Your task to perform on an android device: toggle sleep mode Image 0: 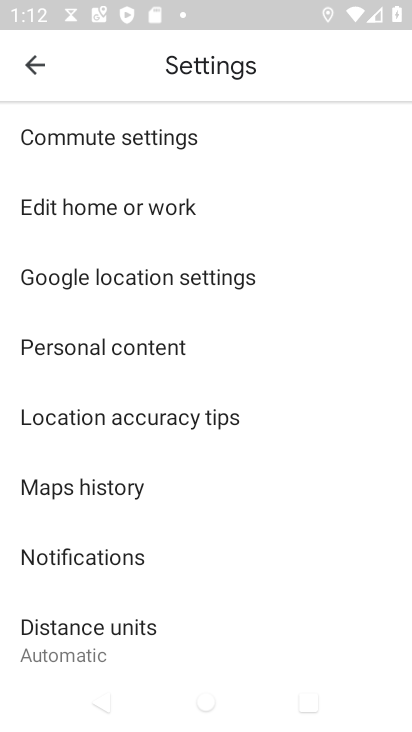
Step 0: press home button
Your task to perform on an android device: toggle sleep mode Image 1: 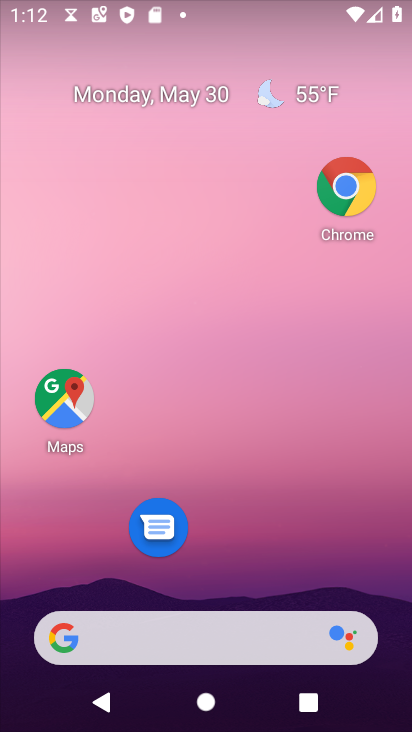
Step 1: drag from (213, 560) to (203, 149)
Your task to perform on an android device: toggle sleep mode Image 2: 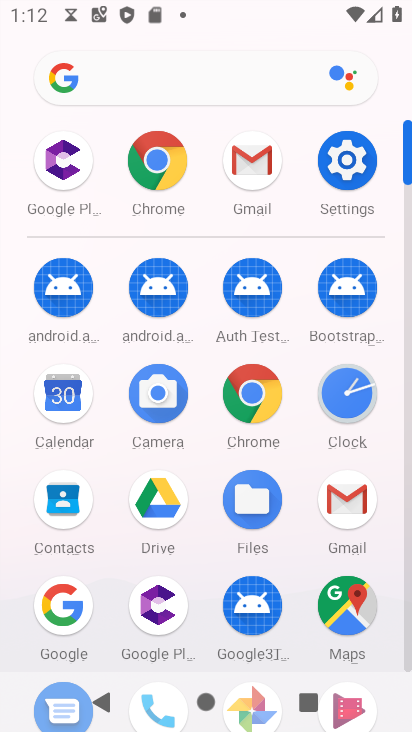
Step 2: click (348, 156)
Your task to perform on an android device: toggle sleep mode Image 3: 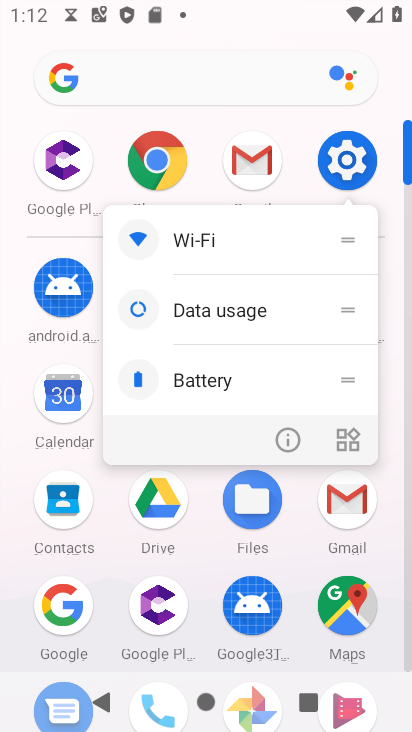
Step 3: click (292, 438)
Your task to perform on an android device: toggle sleep mode Image 4: 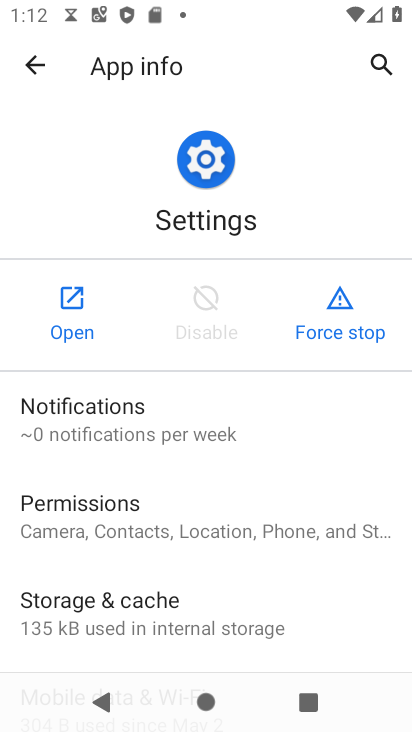
Step 4: click (71, 301)
Your task to perform on an android device: toggle sleep mode Image 5: 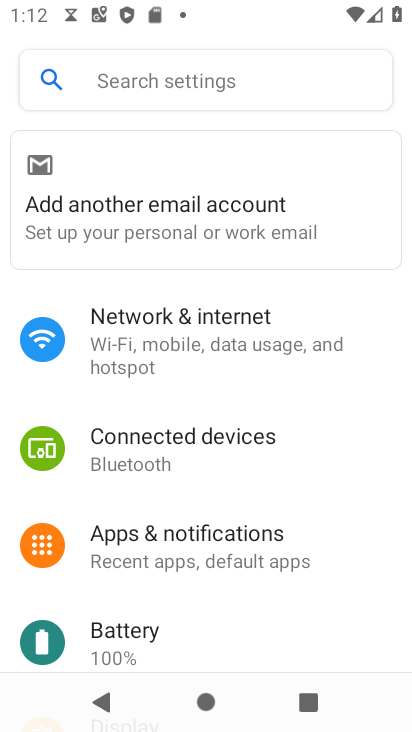
Step 5: drag from (219, 591) to (232, 154)
Your task to perform on an android device: toggle sleep mode Image 6: 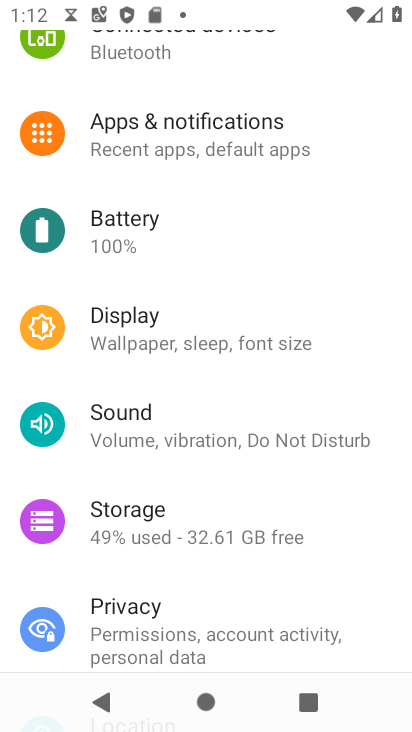
Step 6: click (146, 317)
Your task to perform on an android device: toggle sleep mode Image 7: 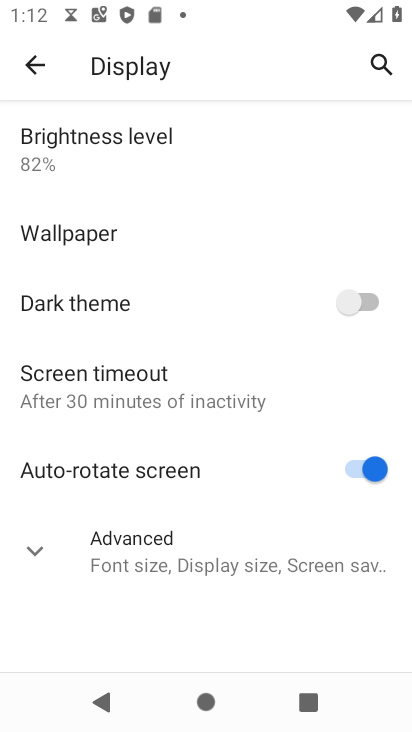
Step 7: click (173, 398)
Your task to perform on an android device: toggle sleep mode Image 8: 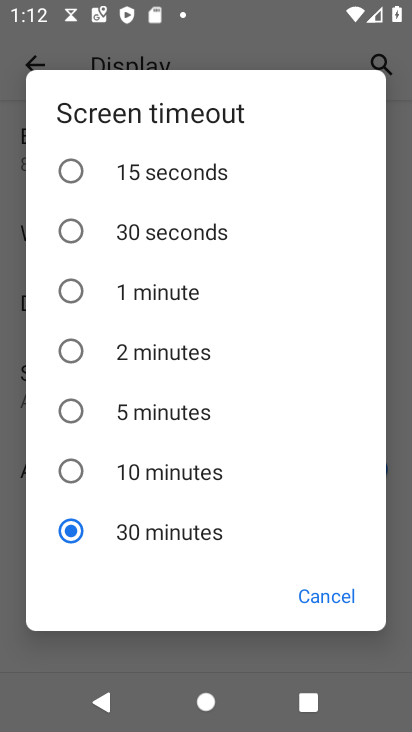
Step 8: task complete